Your task to perform on an android device: open app "Microsoft Authenticator" Image 0: 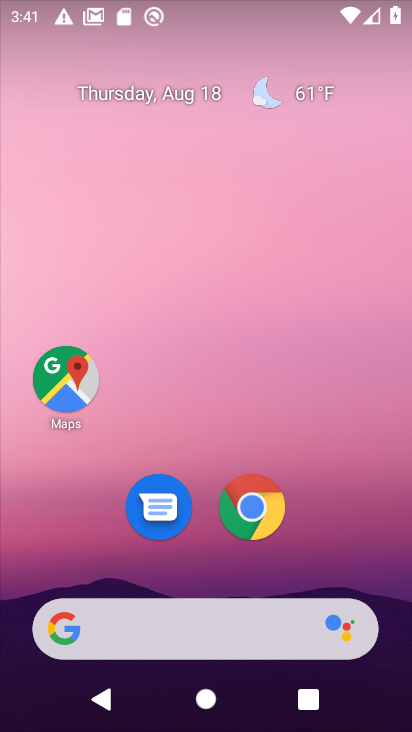
Step 0: drag from (181, 513) to (236, 18)
Your task to perform on an android device: open app "Microsoft Authenticator" Image 1: 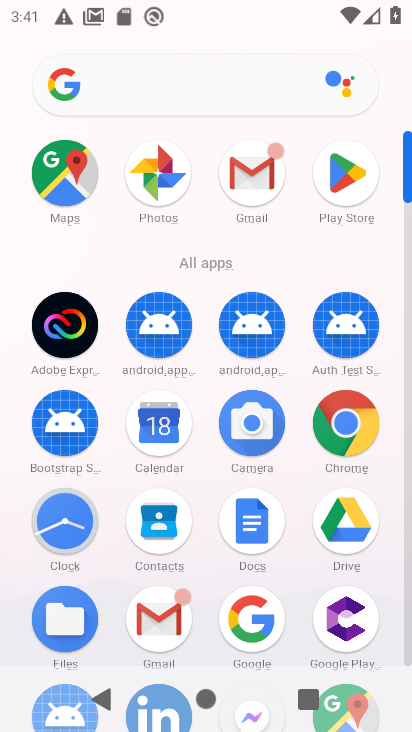
Step 1: click (351, 166)
Your task to perform on an android device: open app "Microsoft Authenticator" Image 2: 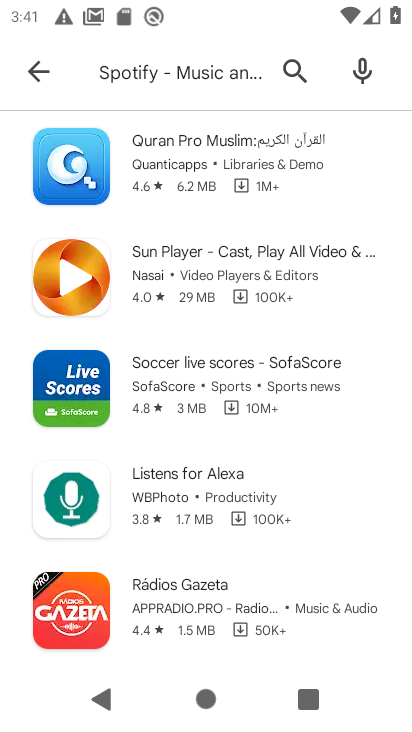
Step 2: click (294, 71)
Your task to perform on an android device: open app "Microsoft Authenticator" Image 3: 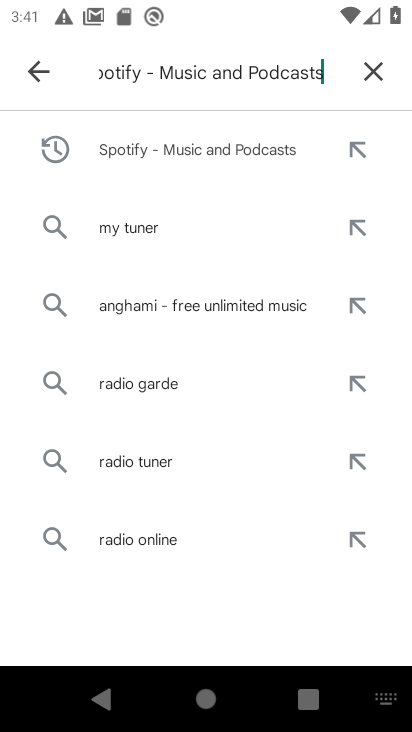
Step 3: click (373, 70)
Your task to perform on an android device: open app "Microsoft Authenticator" Image 4: 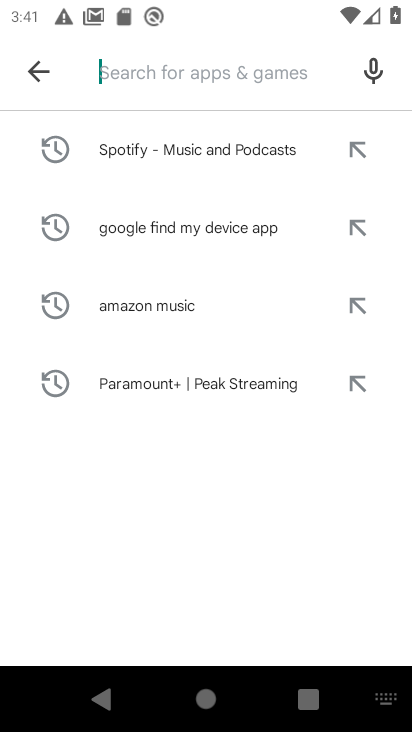
Step 4: click (136, 59)
Your task to perform on an android device: open app "Microsoft Authenticator" Image 5: 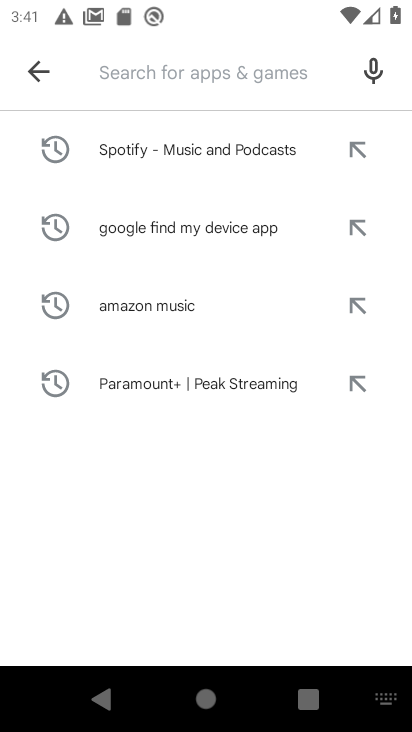
Step 5: type "Microsoft Authenticator"
Your task to perform on an android device: open app "Microsoft Authenticator" Image 6: 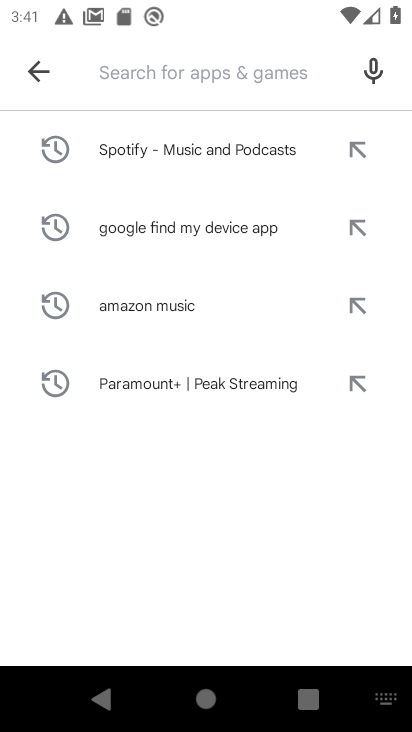
Step 6: click (132, 484)
Your task to perform on an android device: open app "Microsoft Authenticator" Image 7: 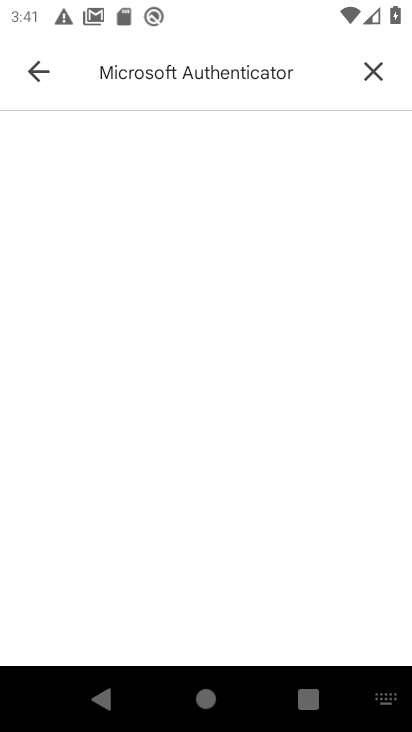
Step 7: task complete